Your task to perform on an android device: Search for pizza restaurants on Maps Image 0: 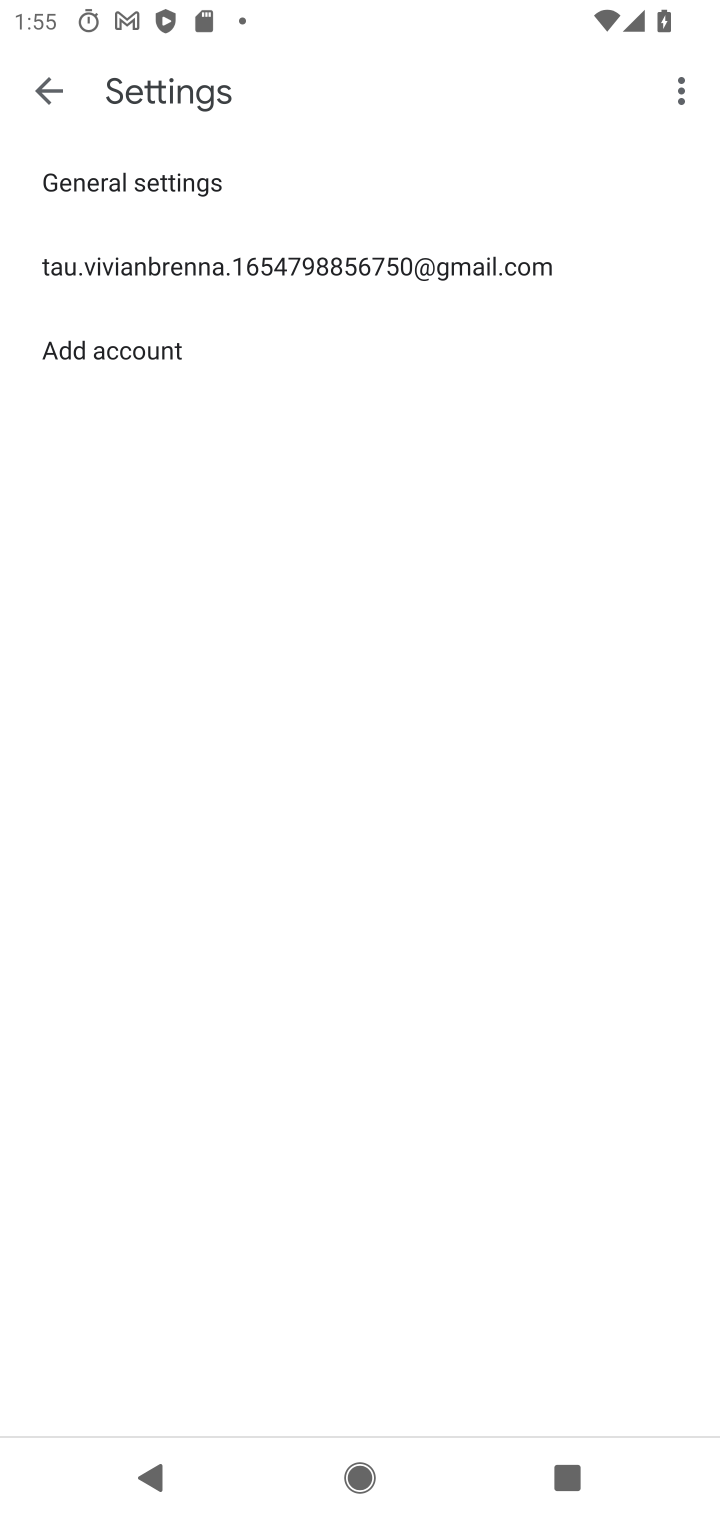
Step 0: press home button
Your task to perform on an android device: Search for pizza restaurants on Maps Image 1: 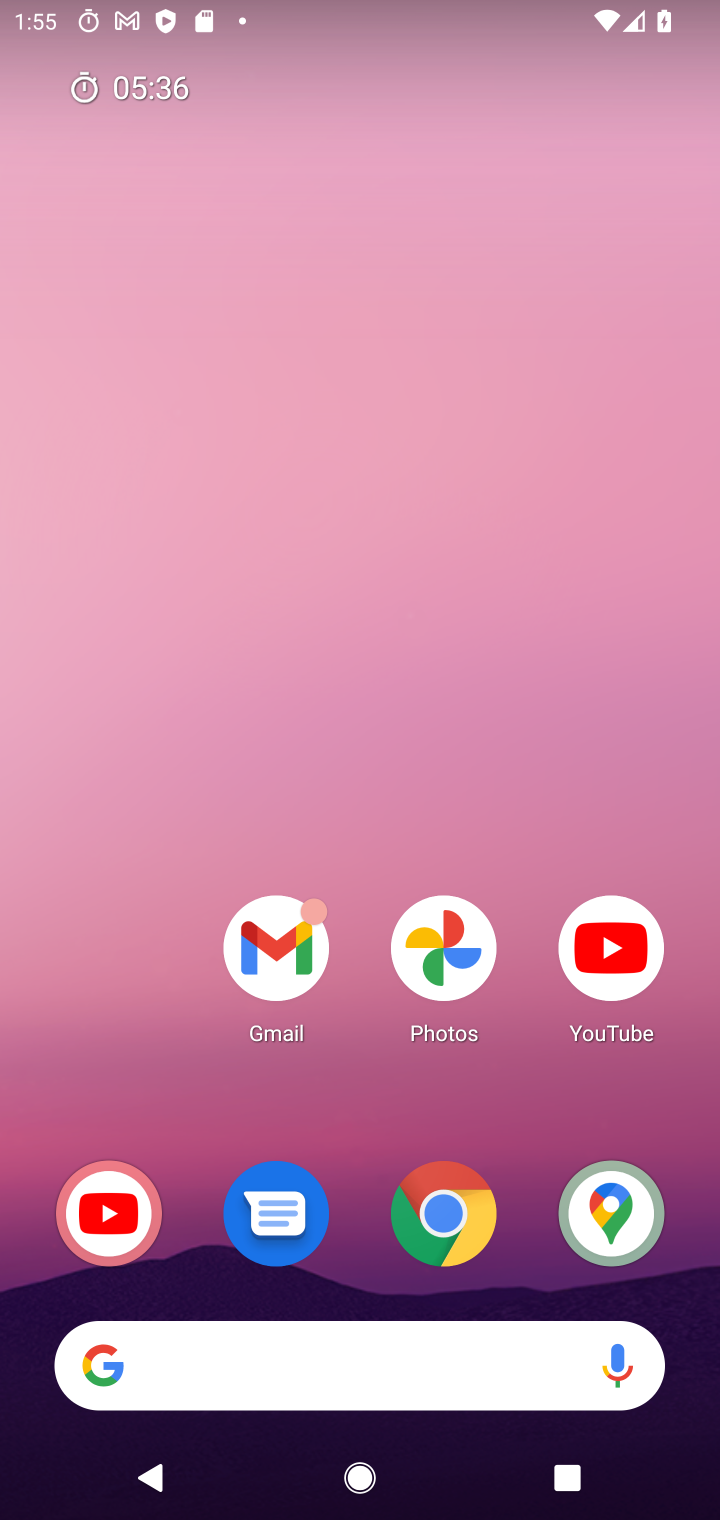
Step 1: drag from (373, 1083) to (615, 1519)
Your task to perform on an android device: Search for pizza restaurants on Maps Image 2: 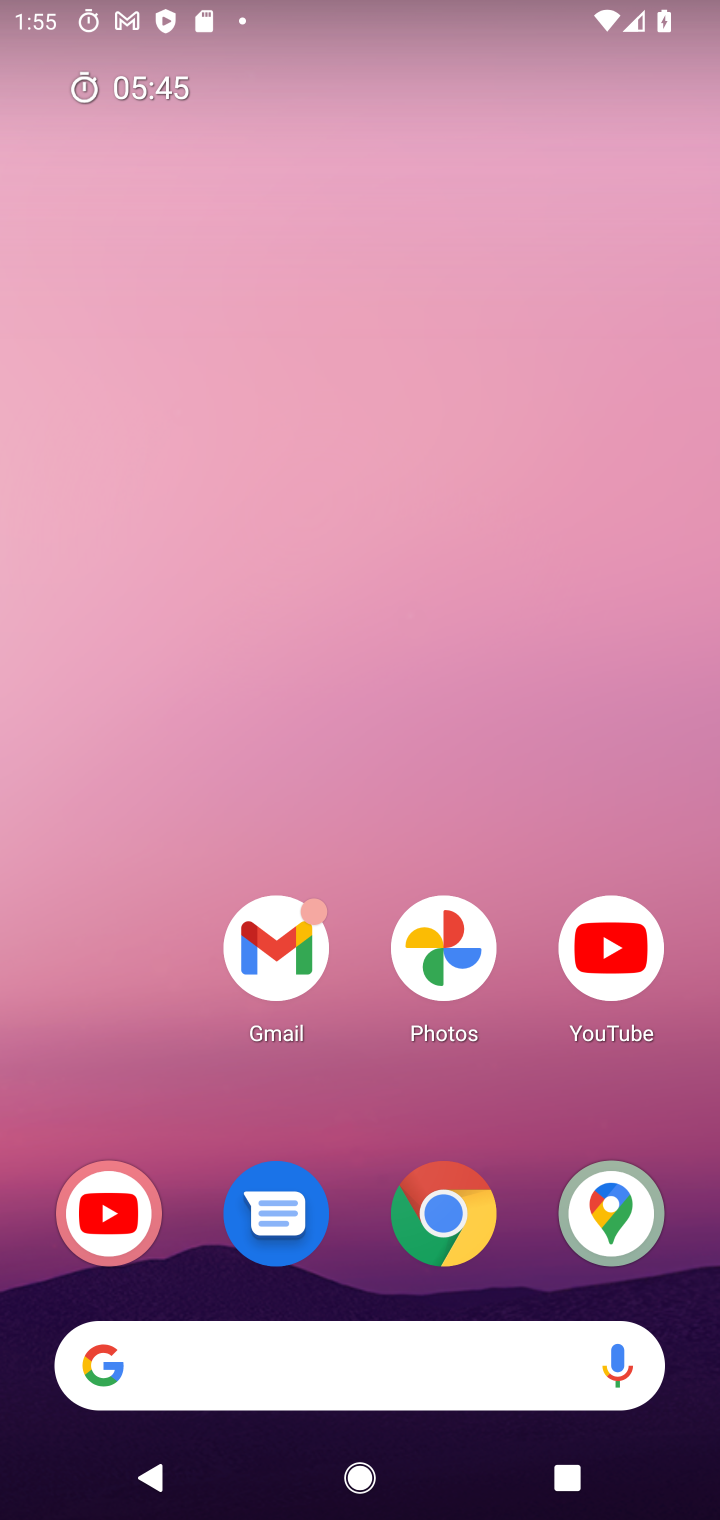
Step 2: drag from (427, 1354) to (630, 3)
Your task to perform on an android device: Search for pizza restaurants on Maps Image 3: 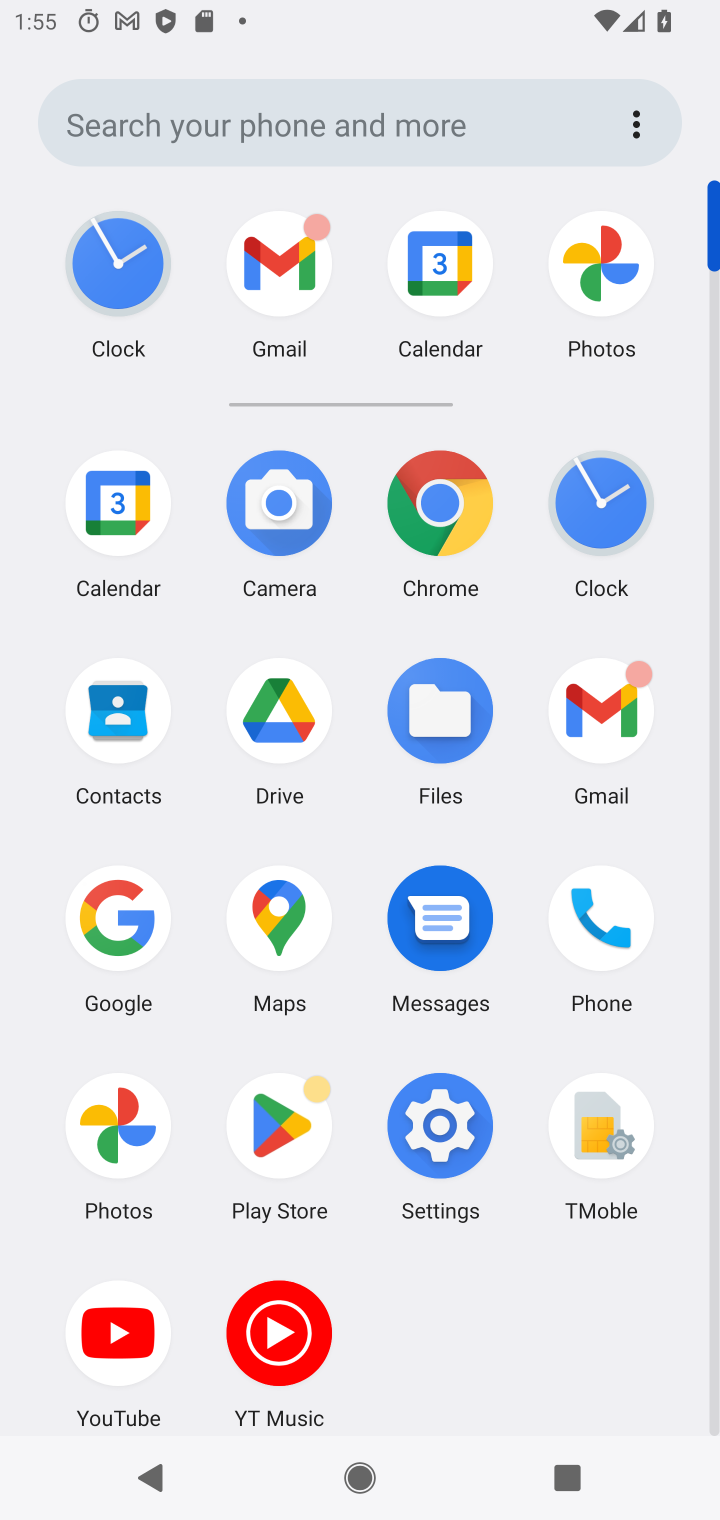
Step 3: click (293, 901)
Your task to perform on an android device: Search for pizza restaurants on Maps Image 4: 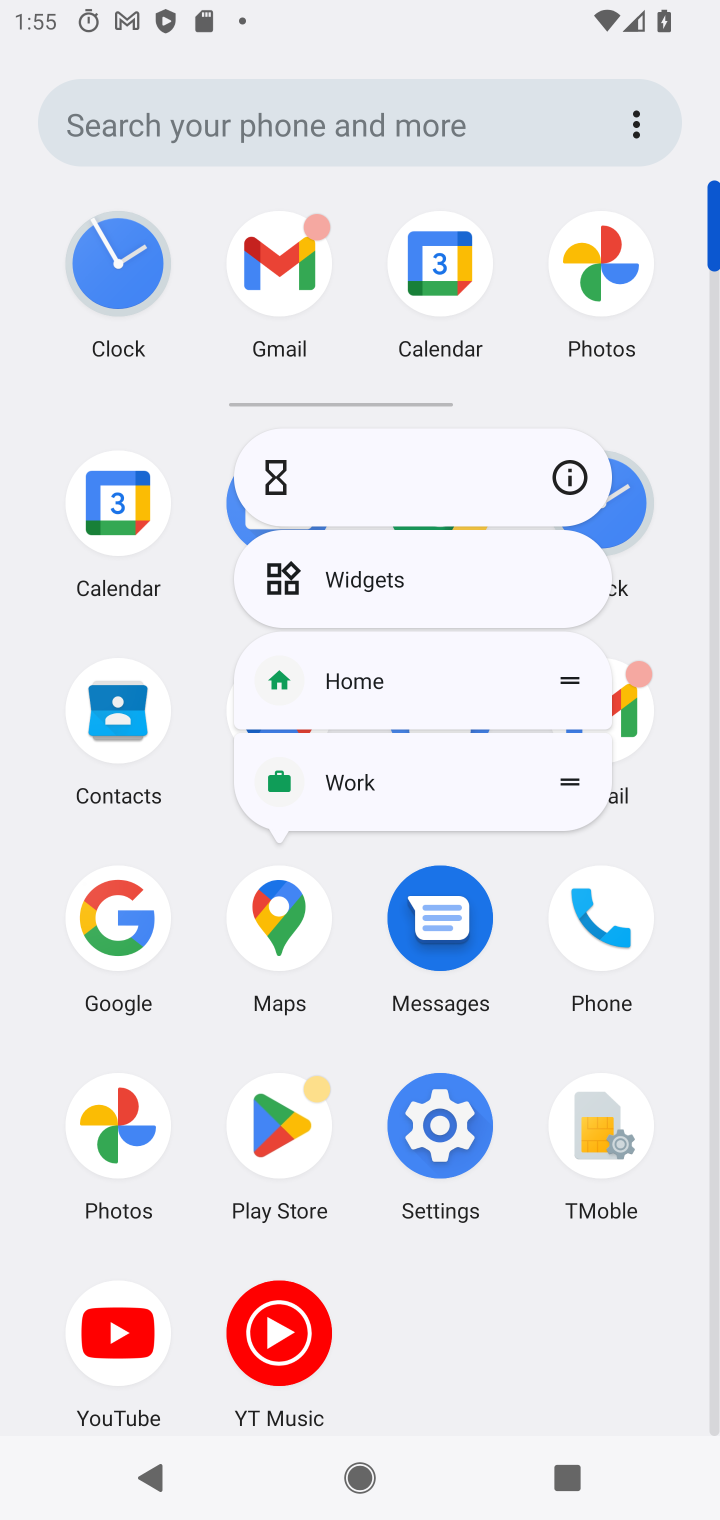
Step 4: click (293, 901)
Your task to perform on an android device: Search for pizza restaurants on Maps Image 5: 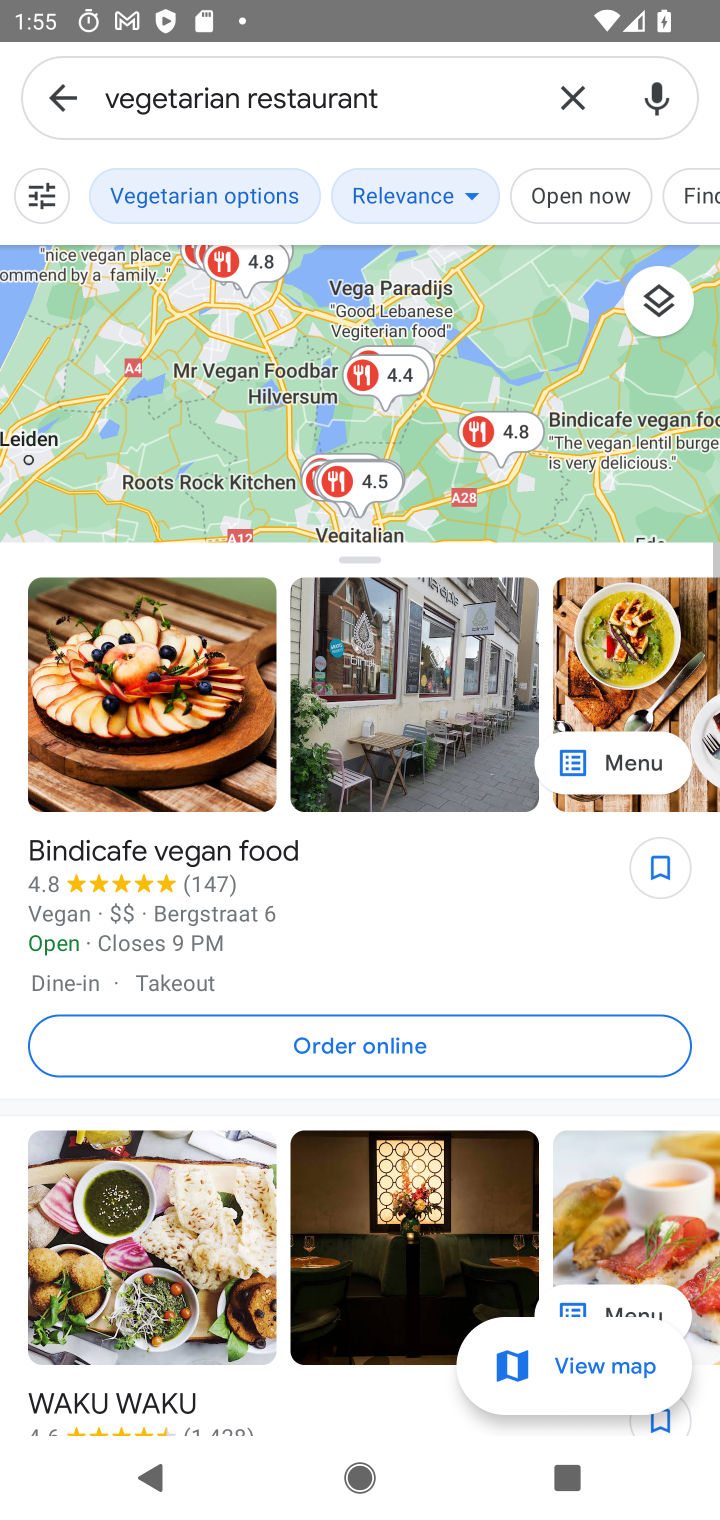
Step 5: click (573, 100)
Your task to perform on an android device: Search for pizza restaurants on Maps Image 6: 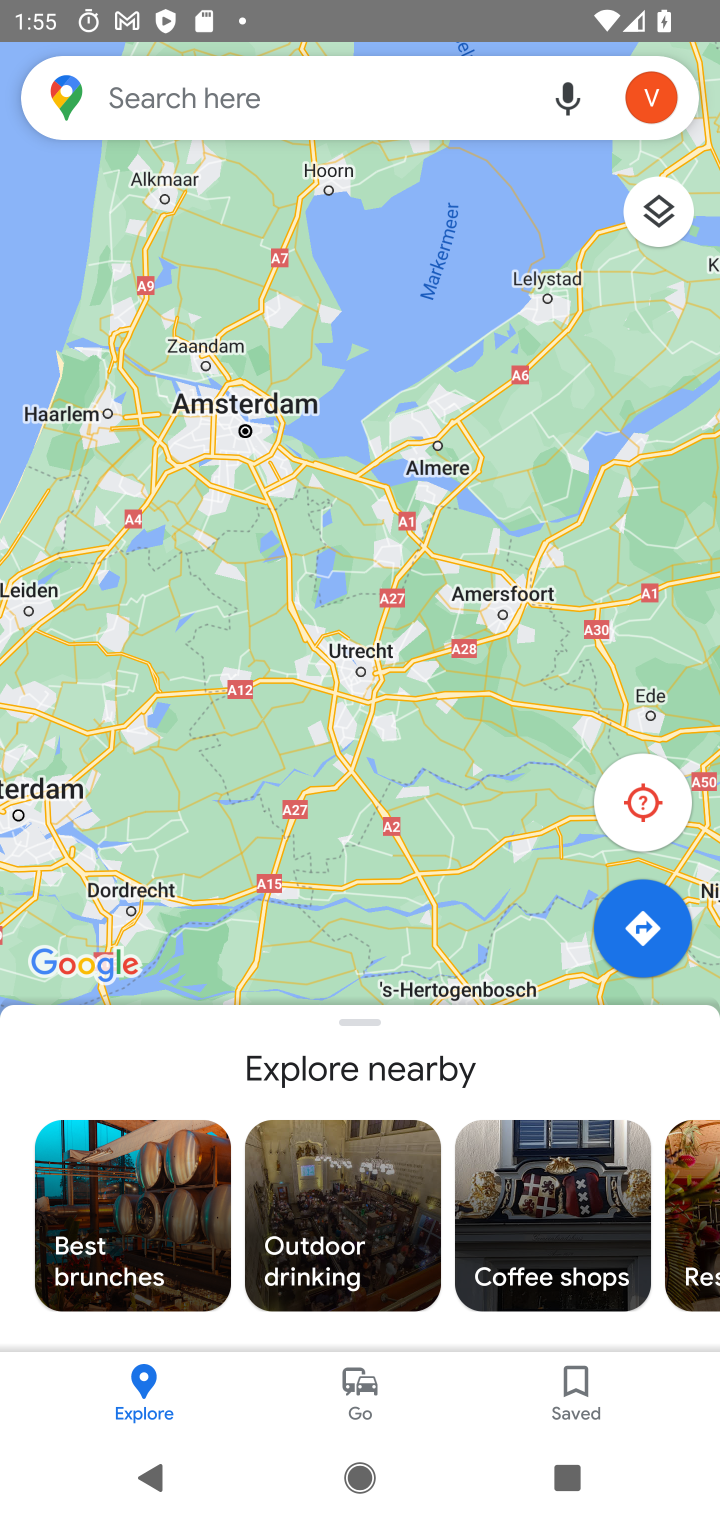
Step 6: click (389, 127)
Your task to perform on an android device: Search for pizza restaurants on Maps Image 7: 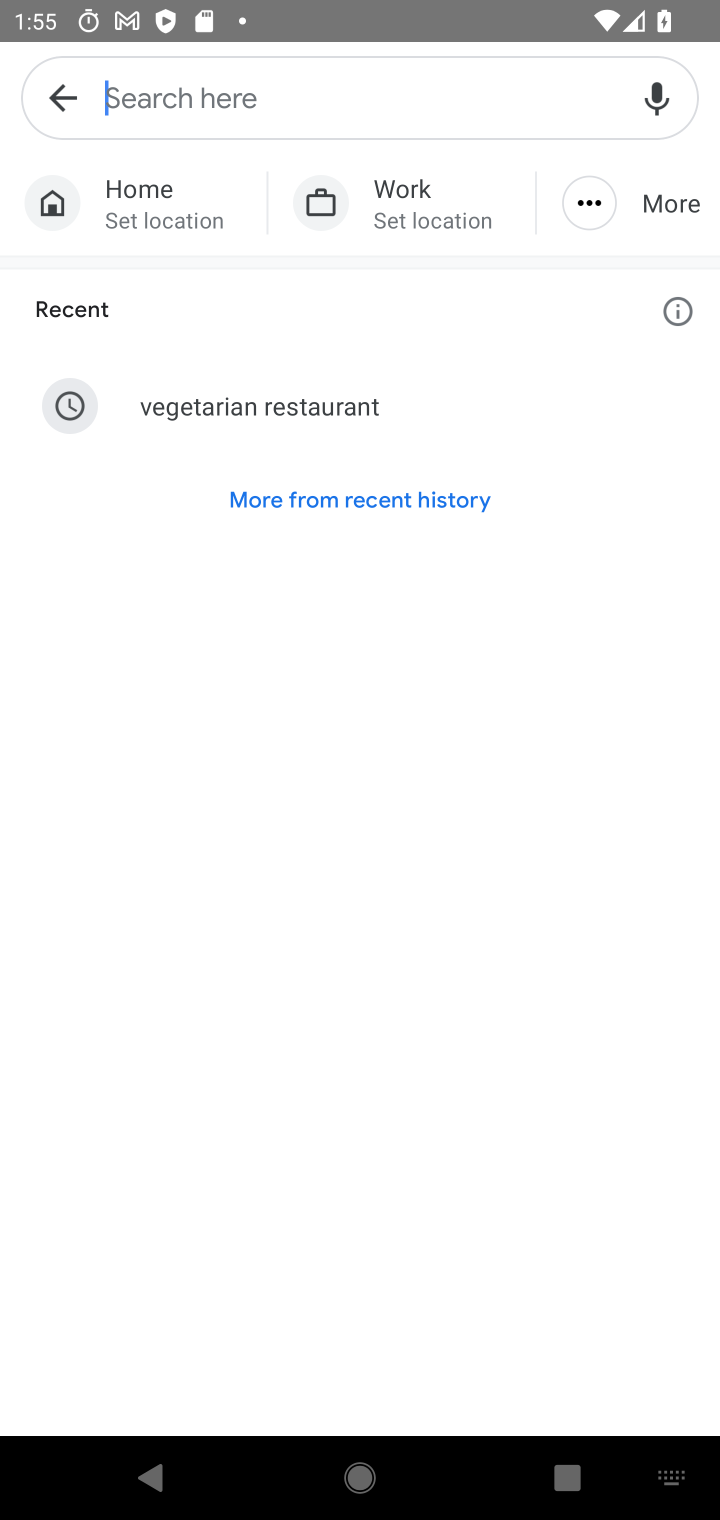
Step 7: type "pizza restaurant"
Your task to perform on an android device: Search for pizza restaurants on Maps Image 8: 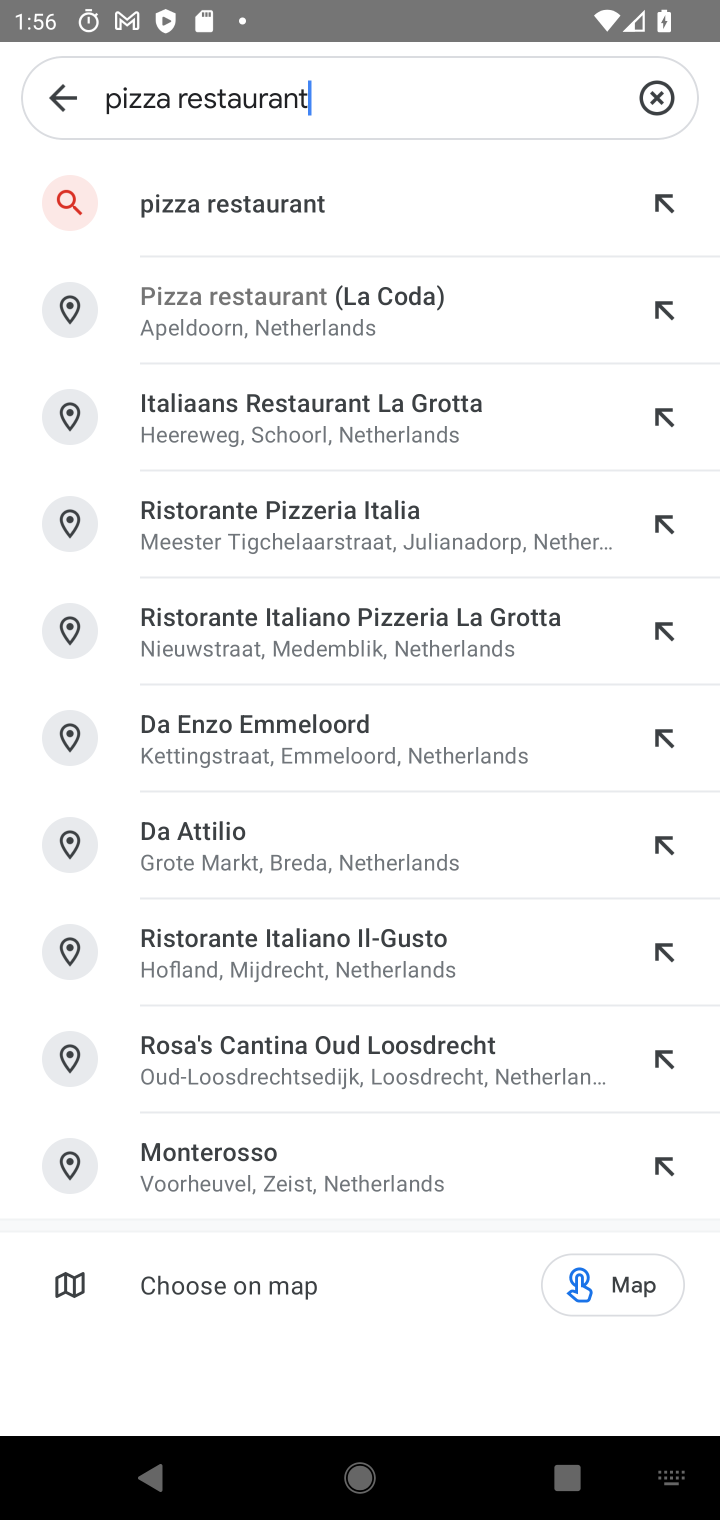
Step 8: click (337, 204)
Your task to perform on an android device: Search for pizza restaurants on Maps Image 9: 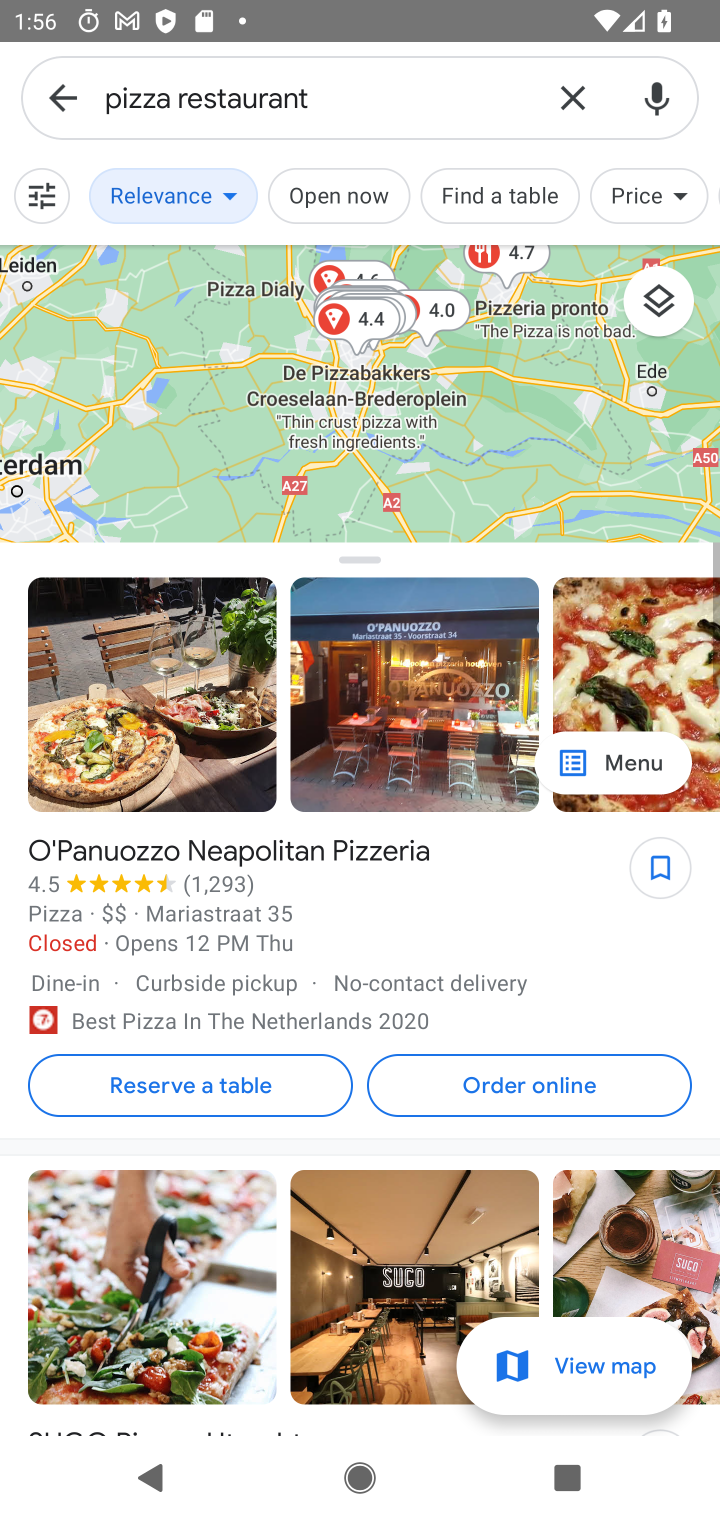
Step 9: task complete